Your task to perform on an android device: delete location history Image 0: 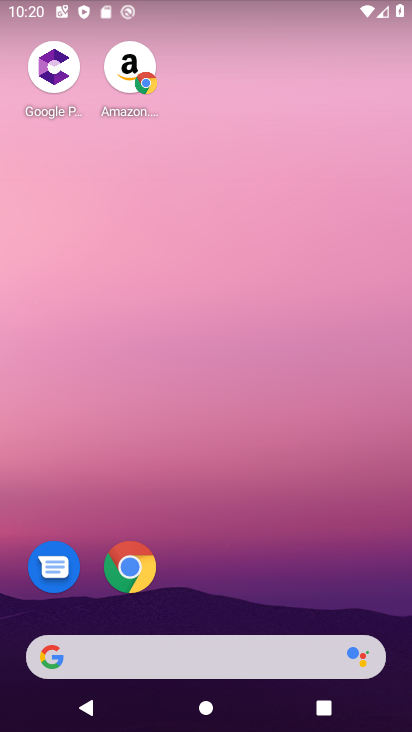
Step 0: drag from (29, 448) to (399, 335)
Your task to perform on an android device: delete location history Image 1: 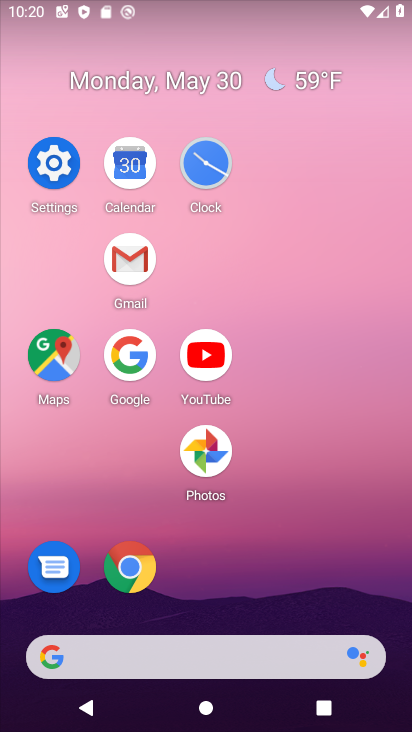
Step 1: click (54, 149)
Your task to perform on an android device: delete location history Image 2: 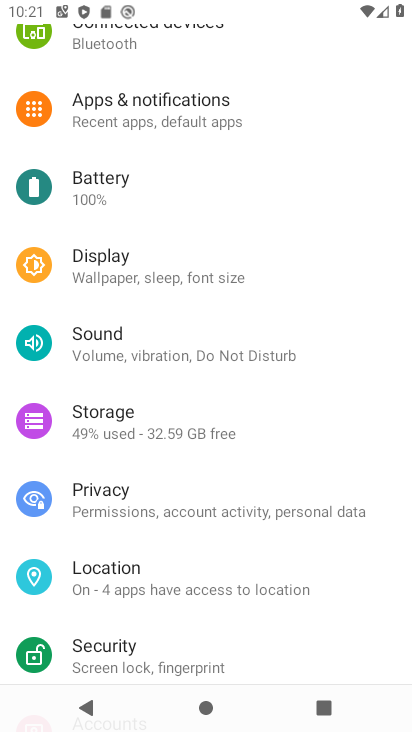
Step 2: click (171, 580)
Your task to perform on an android device: delete location history Image 3: 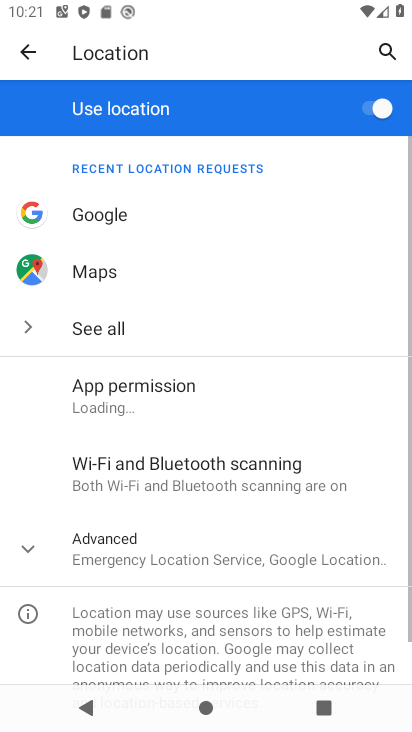
Step 3: click (271, 538)
Your task to perform on an android device: delete location history Image 4: 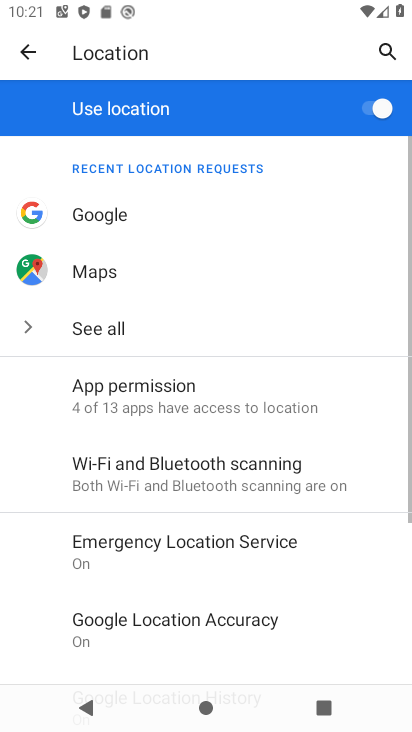
Step 4: drag from (271, 538) to (308, 142)
Your task to perform on an android device: delete location history Image 5: 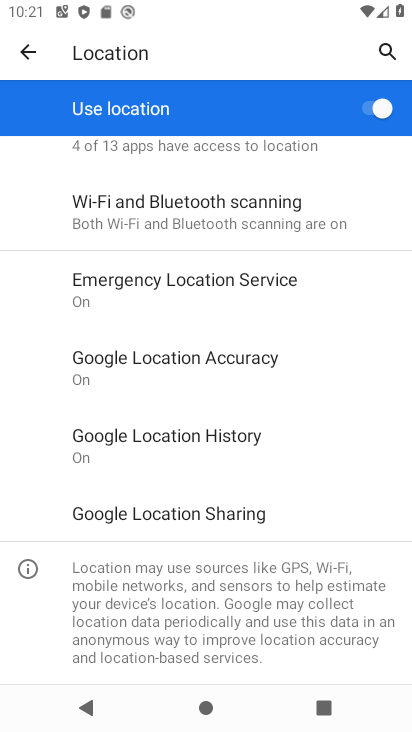
Step 5: click (254, 453)
Your task to perform on an android device: delete location history Image 6: 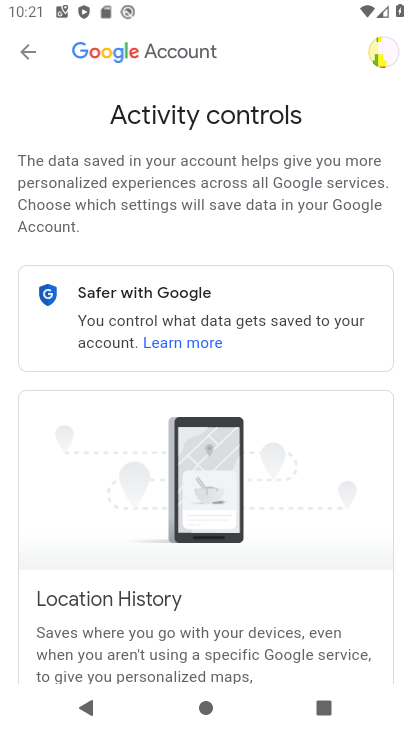
Step 6: drag from (276, 564) to (265, 189)
Your task to perform on an android device: delete location history Image 7: 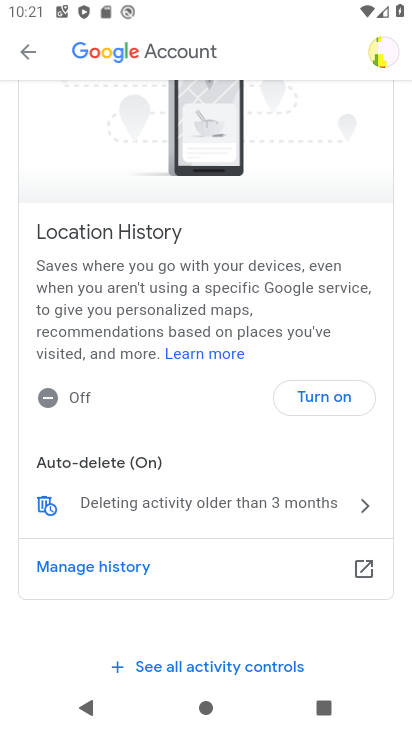
Step 7: click (287, 509)
Your task to perform on an android device: delete location history Image 8: 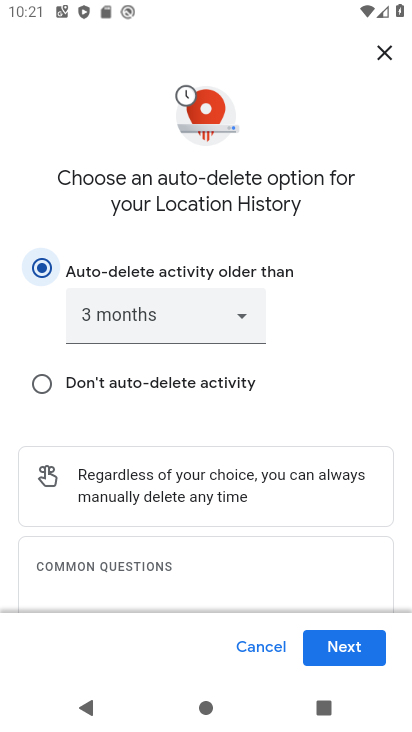
Step 8: drag from (288, 510) to (320, 171)
Your task to perform on an android device: delete location history Image 9: 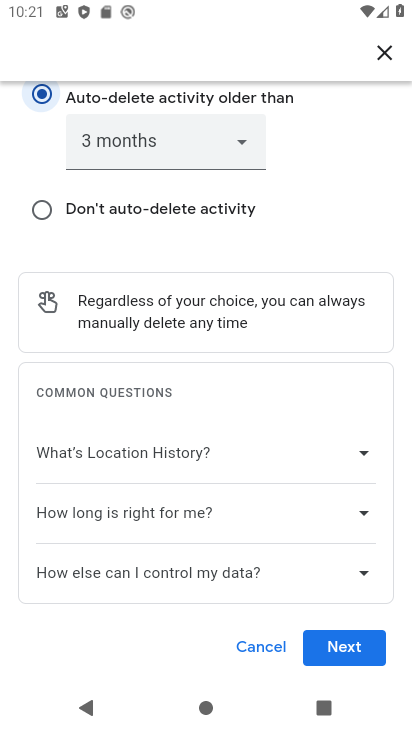
Step 9: click (345, 668)
Your task to perform on an android device: delete location history Image 10: 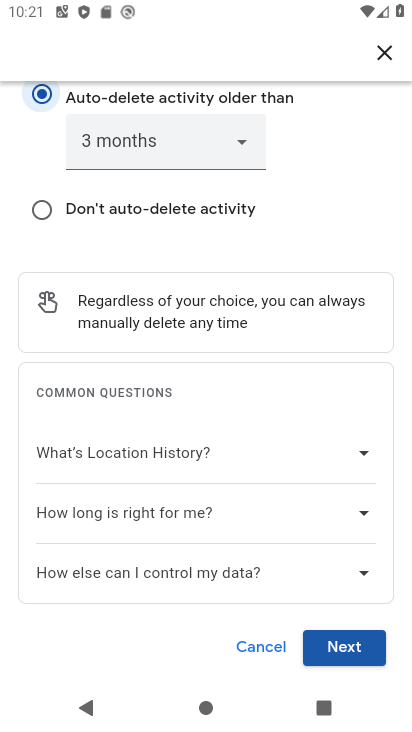
Step 10: click (377, 649)
Your task to perform on an android device: delete location history Image 11: 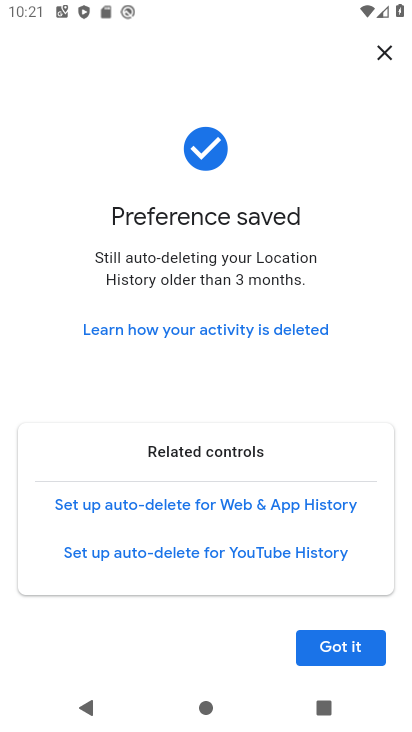
Step 11: click (377, 649)
Your task to perform on an android device: delete location history Image 12: 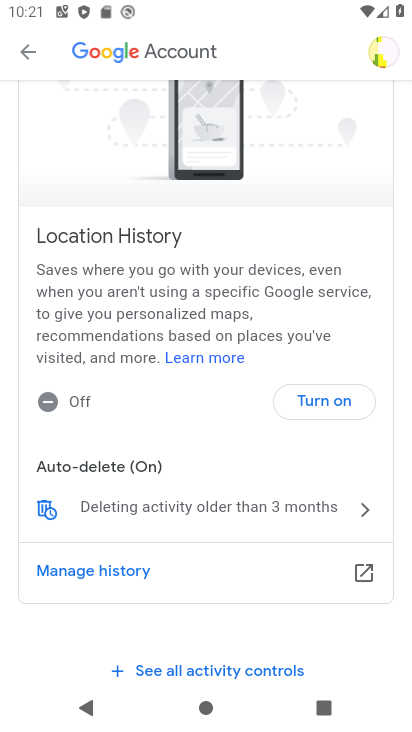
Step 12: task complete